Your task to perform on an android device: remove spam from my inbox in the gmail app Image 0: 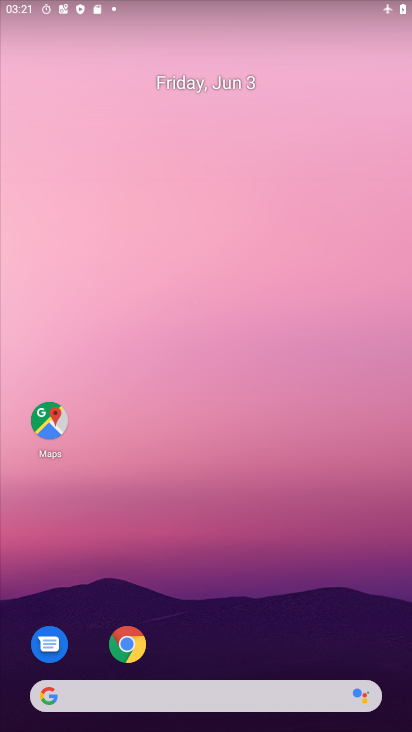
Step 0: drag from (192, 649) to (204, 151)
Your task to perform on an android device: remove spam from my inbox in the gmail app Image 1: 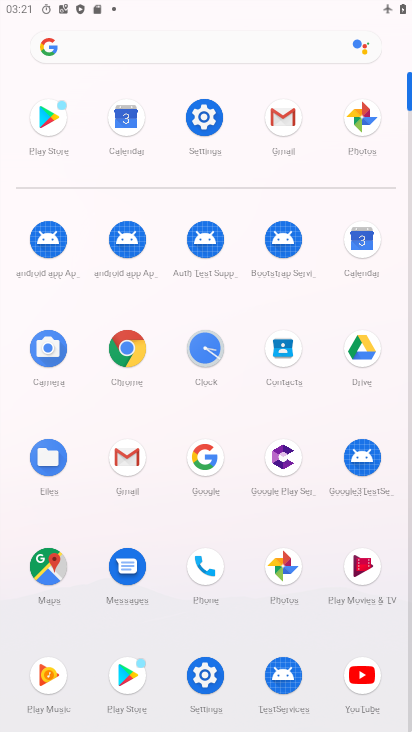
Step 1: click (274, 117)
Your task to perform on an android device: remove spam from my inbox in the gmail app Image 2: 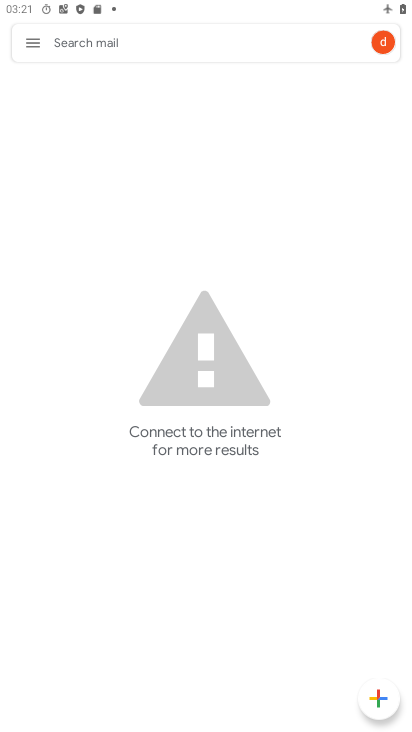
Step 2: click (34, 53)
Your task to perform on an android device: remove spam from my inbox in the gmail app Image 3: 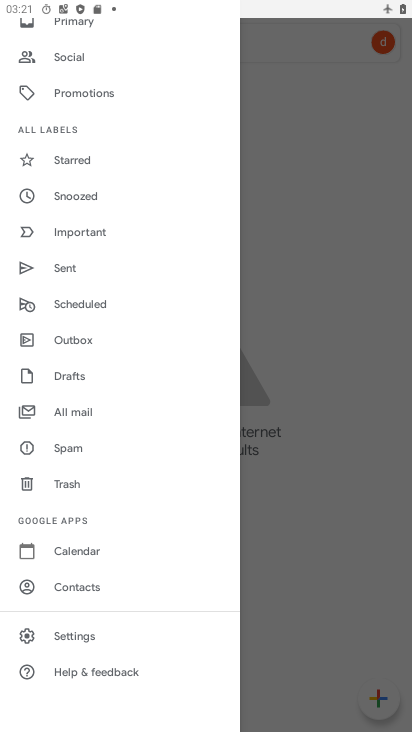
Step 3: click (94, 448)
Your task to perform on an android device: remove spam from my inbox in the gmail app Image 4: 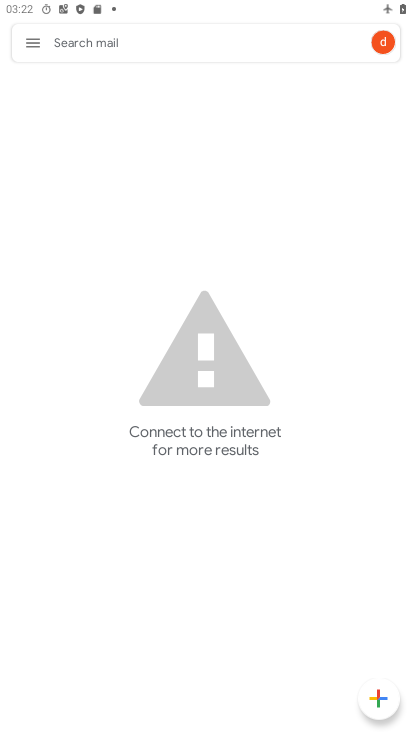
Step 4: click (33, 48)
Your task to perform on an android device: remove spam from my inbox in the gmail app Image 5: 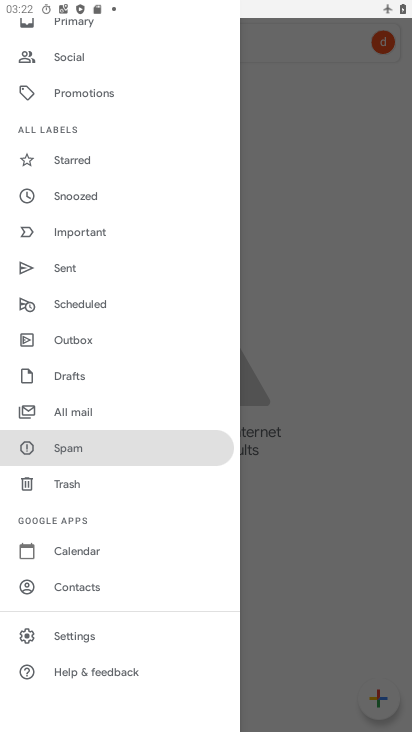
Step 5: task complete